Your task to perform on an android device: Open Wikipedia Image 0: 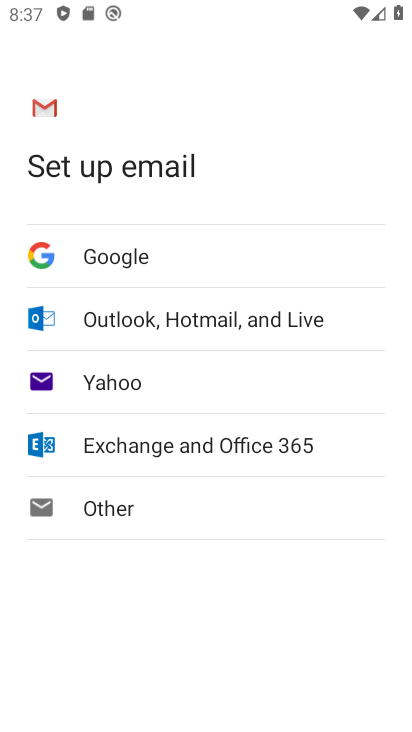
Step 0: press home button
Your task to perform on an android device: Open Wikipedia Image 1: 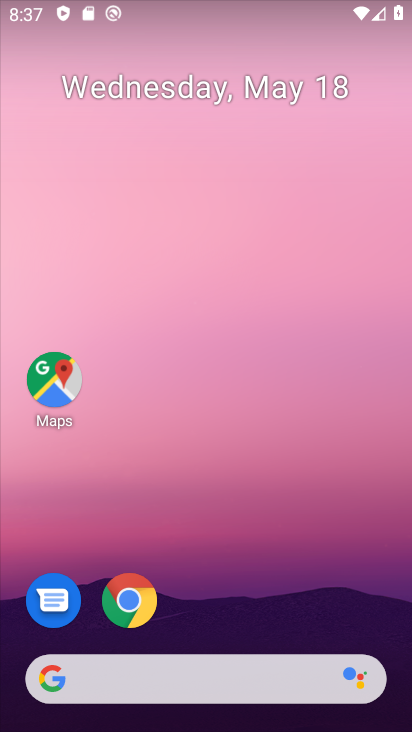
Step 1: click (129, 594)
Your task to perform on an android device: Open Wikipedia Image 2: 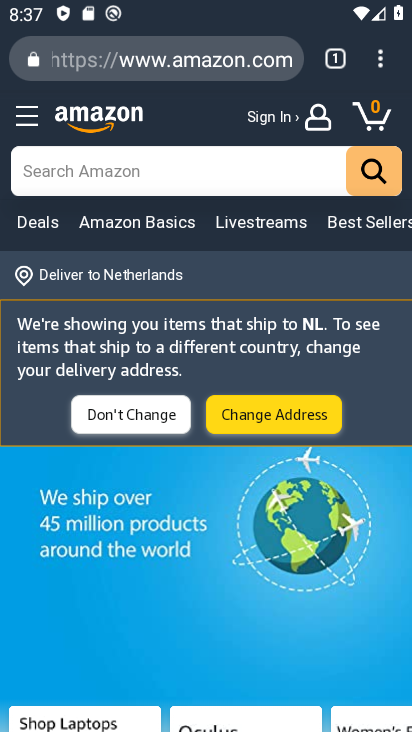
Step 2: click (330, 68)
Your task to perform on an android device: Open Wikipedia Image 3: 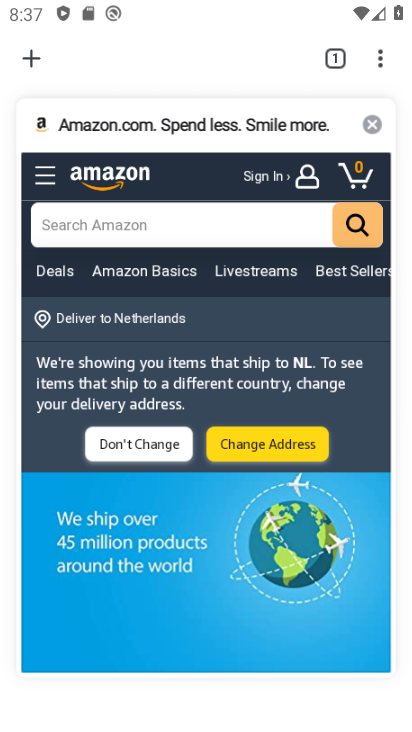
Step 3: click (35, 52)
Your task to perform on an android device: Open Wikipedia Image 4: 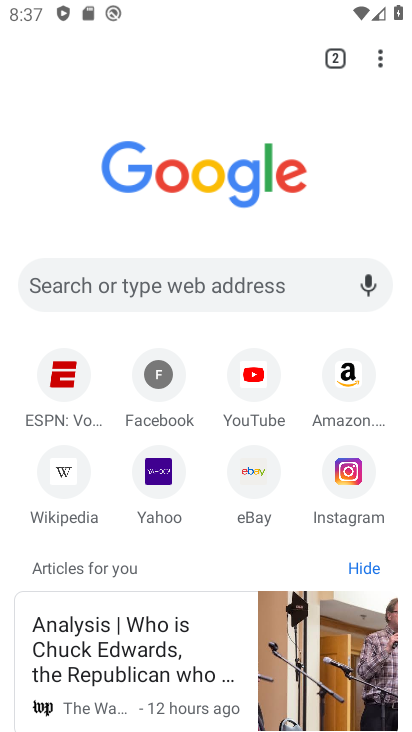
Step 4: click (68, 470)
Your task to perform on an android device: Open Wikipedia Image 5: 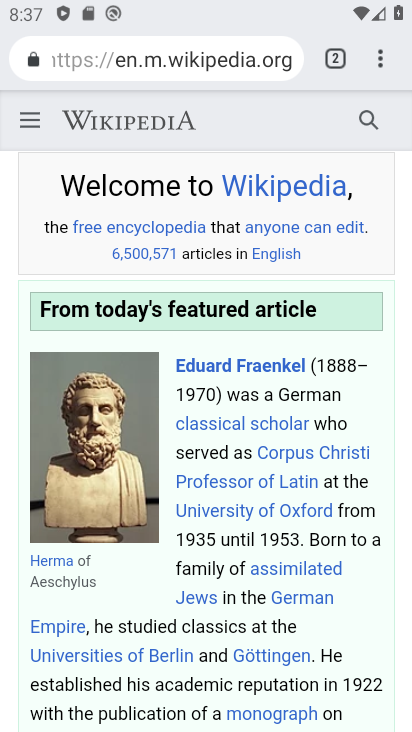
Step 5: task complete